Your task to perform on an android device: Open the phone app and click the voicemail tab. Image 0: 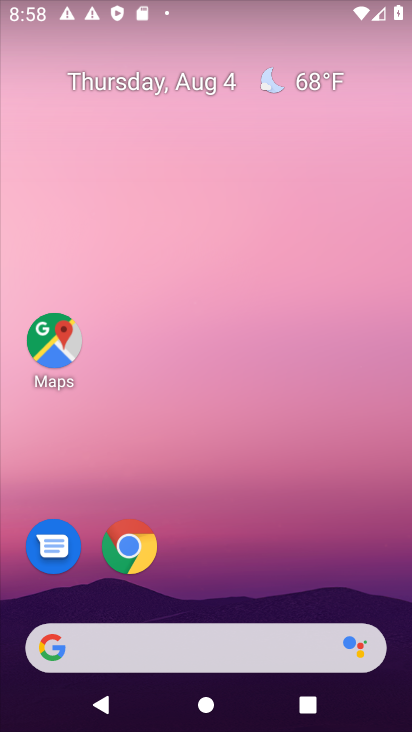
Step 0: drag from (225, 612) to (292, 6)
Your task to perform on an android device: Open the phone app and click the voicemail tab. Image 1: 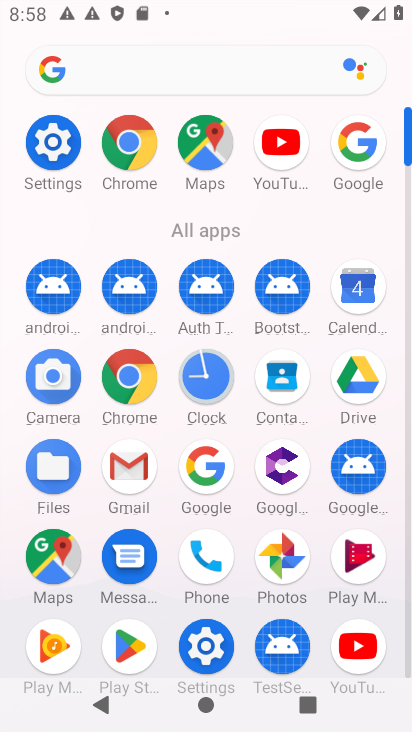
Step 1: click (200, 549)
Your task to perform on an android device: Open the phone app and click the voicemail tab. Image 2: 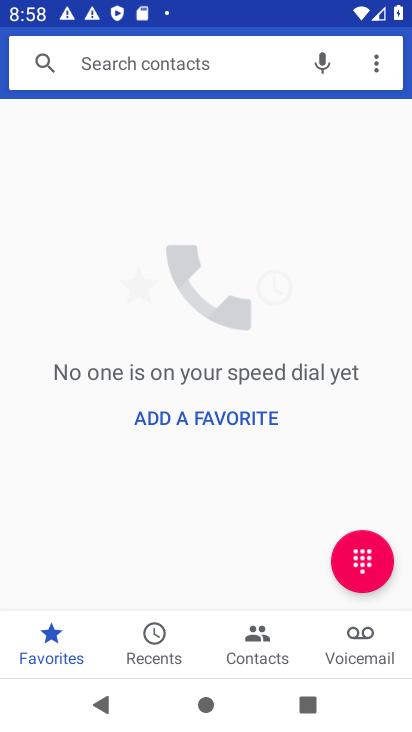
Step 2: click (369, 638)
Your task to perform on an android device: Open the phone app and click the voicemail tab. Image 3: 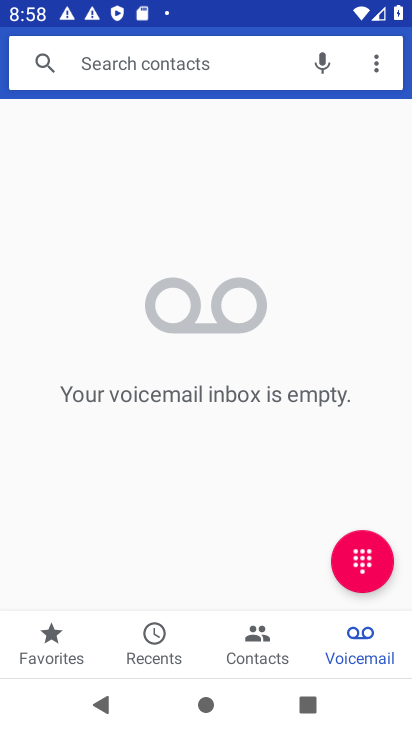
Step 3: task complete